Your task to perform on an android device: Open Reddit.com Image 0: 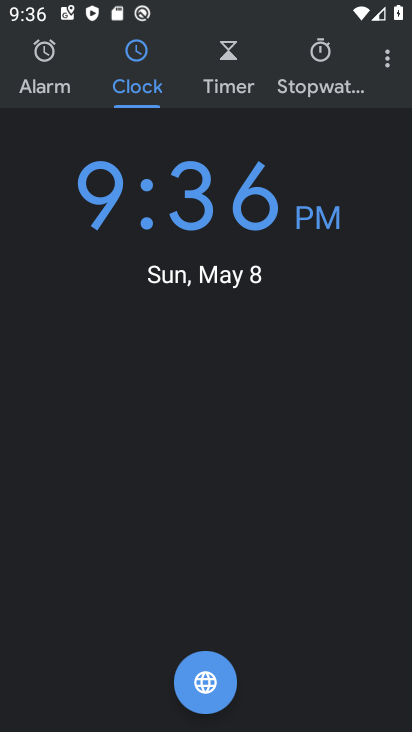
Step 0: press back button
Your task to perform on an android device: Open Reddit.com Image 1: 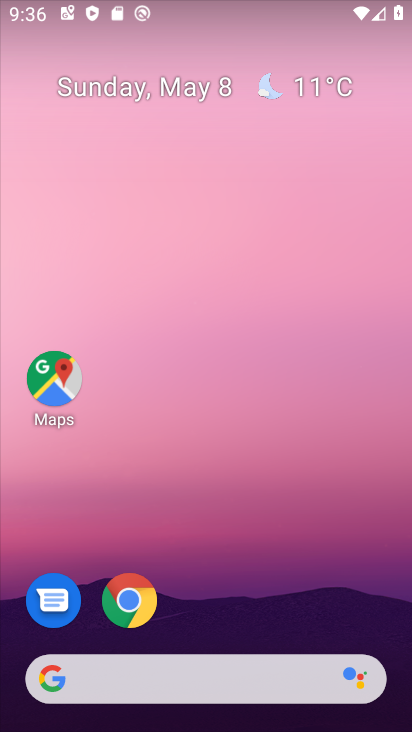
Step 1: drag from (205, 590) to (231, 29)
Your task to perform on an android device: Open Reddit.com Image 2: 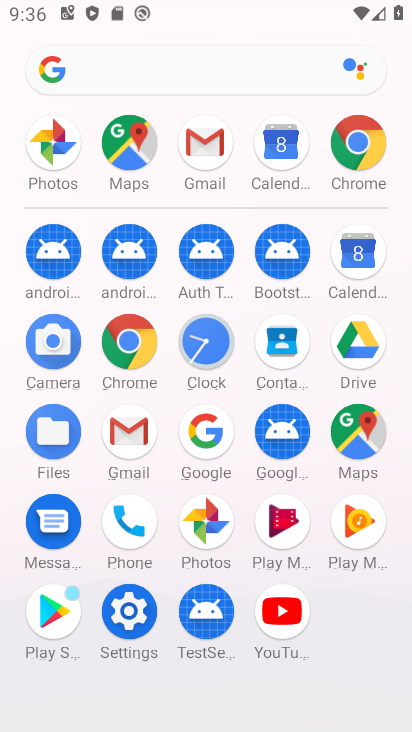
Step 2: click (134, 332)
Your task to perform on an android device: Open Reddit.com Image 3: 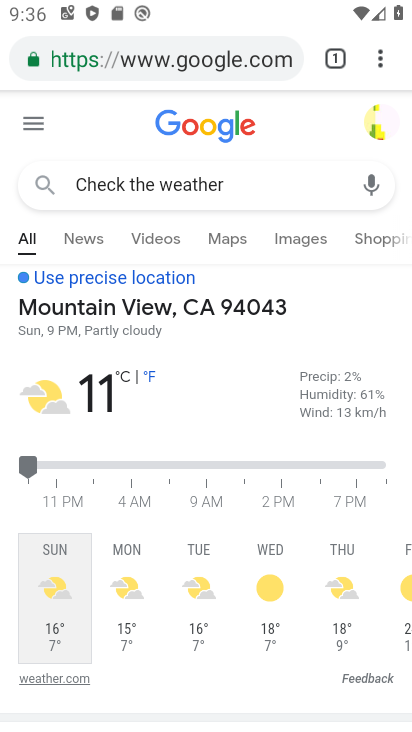
Step 3: click (171, 48)
Your task to perform on an android device: Open Reddit.com Image 4: 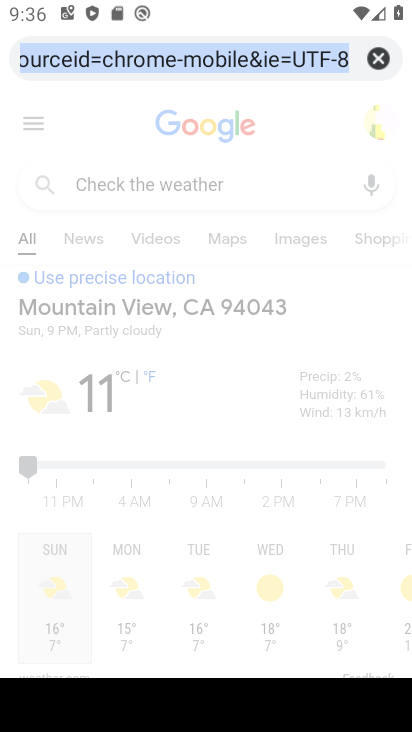
Step 4: click (380, 55)
Your task to perform on an android device: Open Reddit.com Image 5: 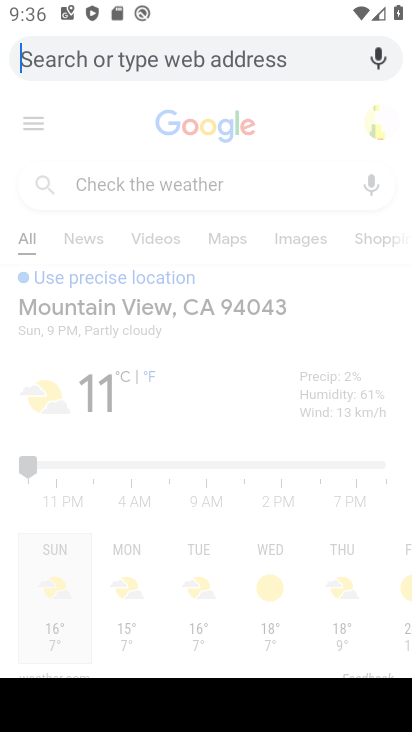
Step 5: type "Reddit.com"
Your task to perform on an android device: Open Reddit.com Image 6: 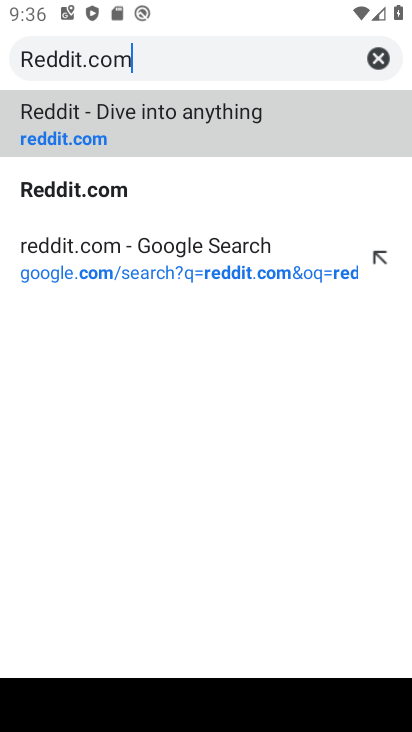
Step 6: type ""
Your task to perform on an android device: Open Reddit.com Image 7: 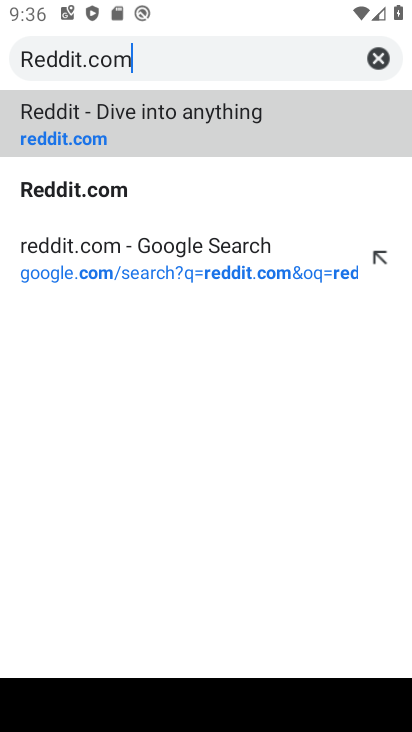
Step 7: click (121, 129)
Your task to perform on an android device: Open Reddit.com Image 8: 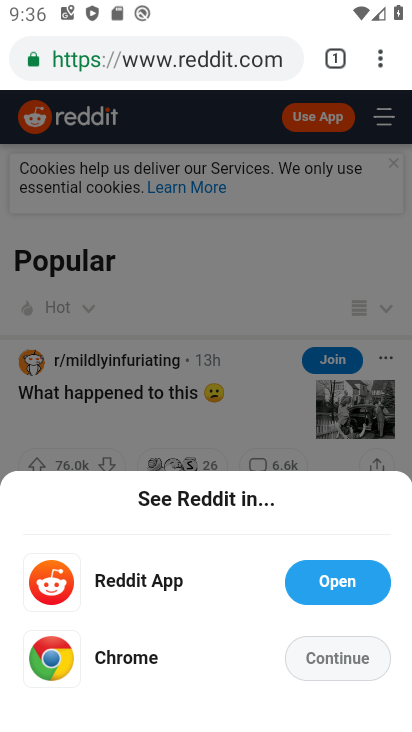
Step 8: task complete